Your task to perform on an android device: manage bookmarks in the chrome app Image 0: 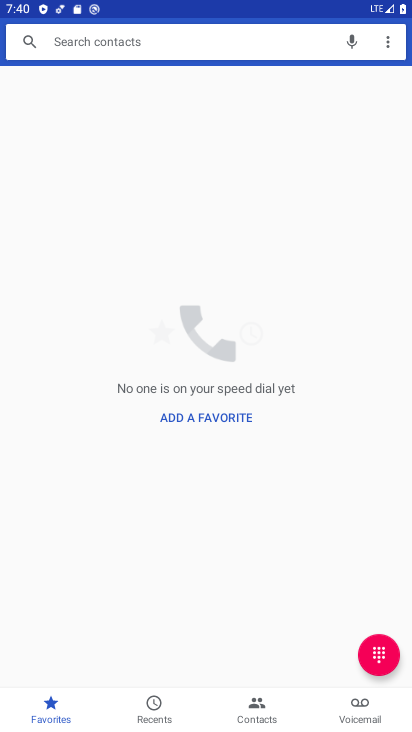
Step 0: press home button
Your task to perform on an android device: manage bookmarks in the chrome app Image 1: 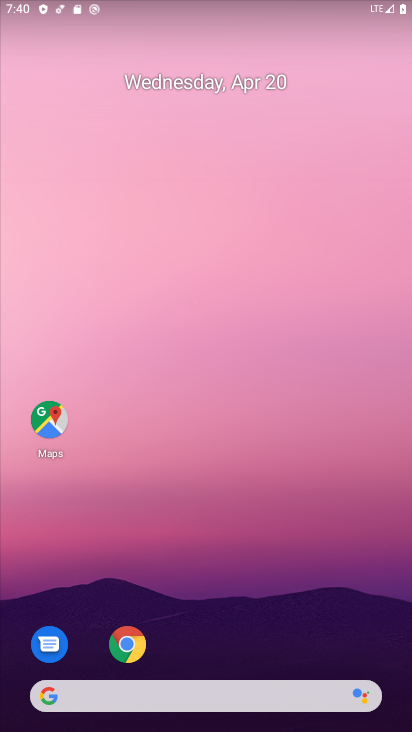
Step 1: click (129, 647)
Your task to perform on an android device: manage bookmarks in the chrome app Image 2: 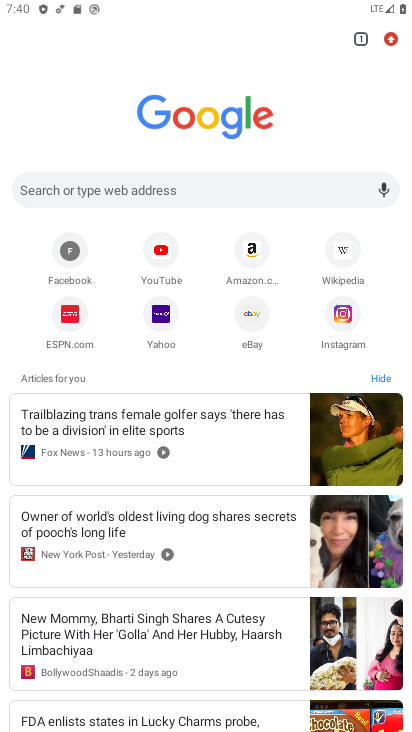
Step 2: click (388, 35)
Your task to perform on an android device: manage bookmarks in the chrome app Image 3: 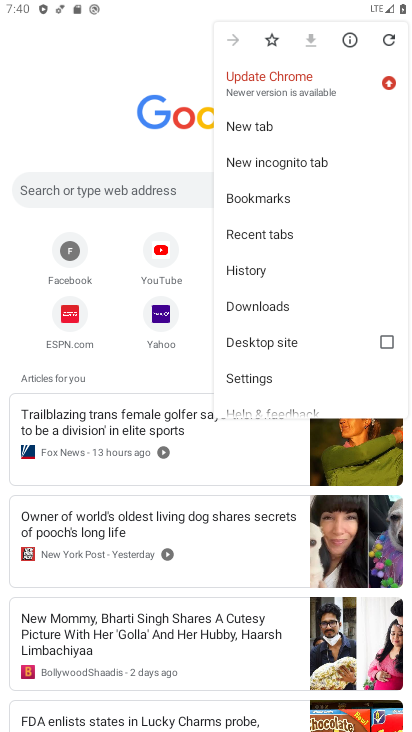
Step 3: click (241, 199)
Your task to perform on an android device: manage bookmarks in the chrome app Image 4: 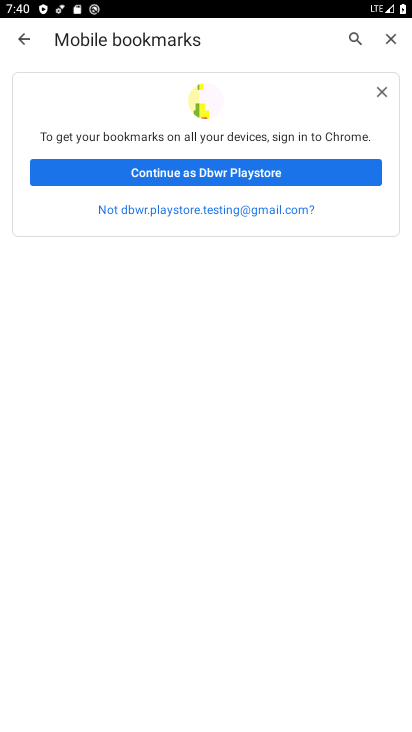
Step 4: click (214, 174)
Your task to perform on an android device: manage bookmarks in the chrome app Image 5: 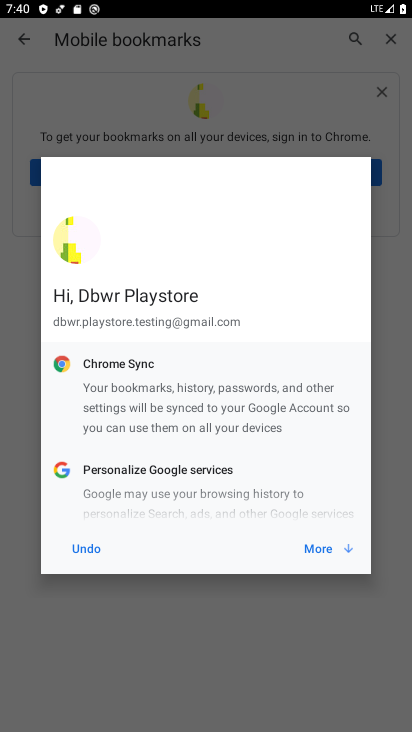
Step 5: click (324, 555)
Your task to perform on an android device: manage bookmarks in the chrome app Image 6: 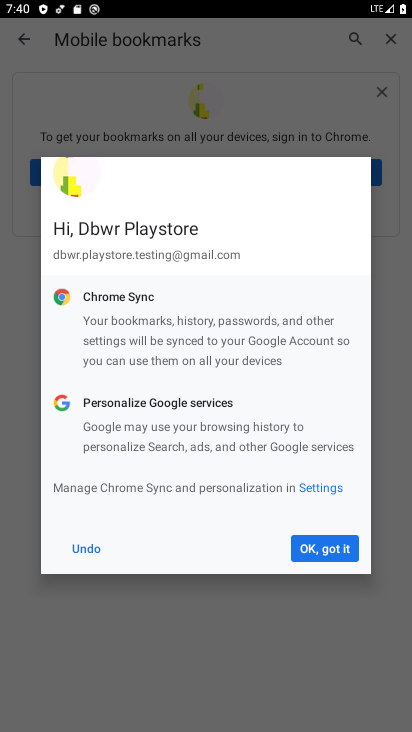
Step 6: click (324, 555)
Your task to perform on an android device: manage bookmarks in the chrome app Image 7: 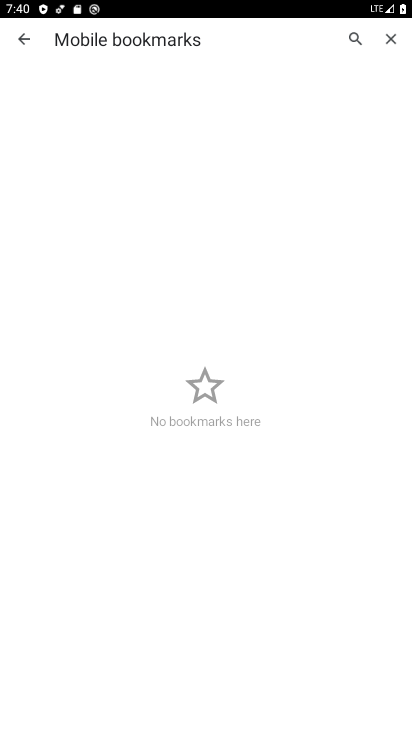
Step 7: drag from (200, 102) to (198, 479)
Your task to perform on an android device: manage bookmarks in the chrome app Image 8: 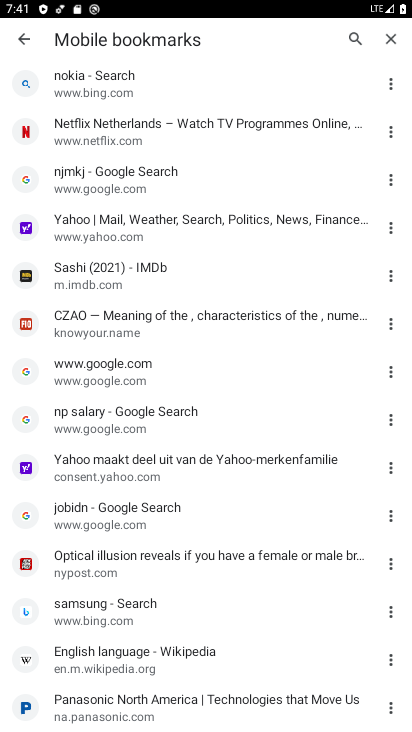
Step 8: click (392, 513)
Your task to perform on an android device: manage bookmarks in the chrome app Image 9: 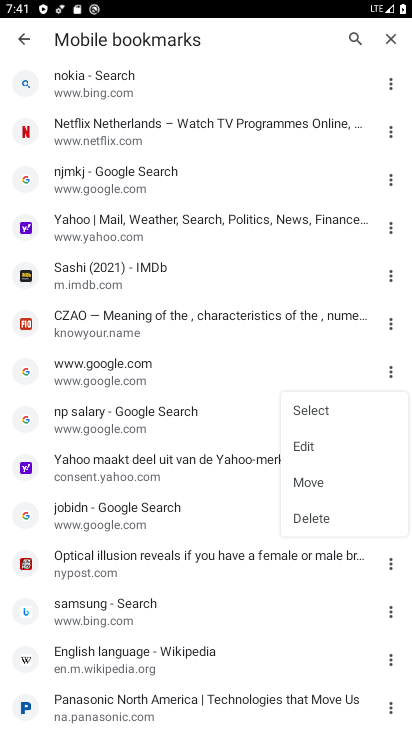
Step 9: click (313, 523)
Your task to perform on an android device: manage bookmarks in the chrome app Image 10: 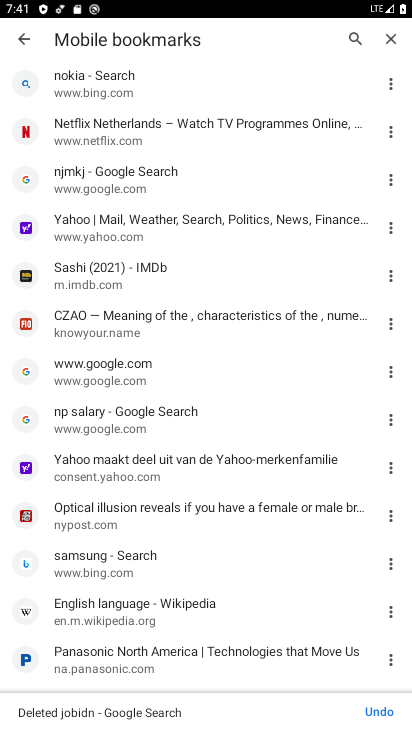
Step 10: task complete